Your task to perform on an android device: turn vacation reply on in the gmail app Image 0: 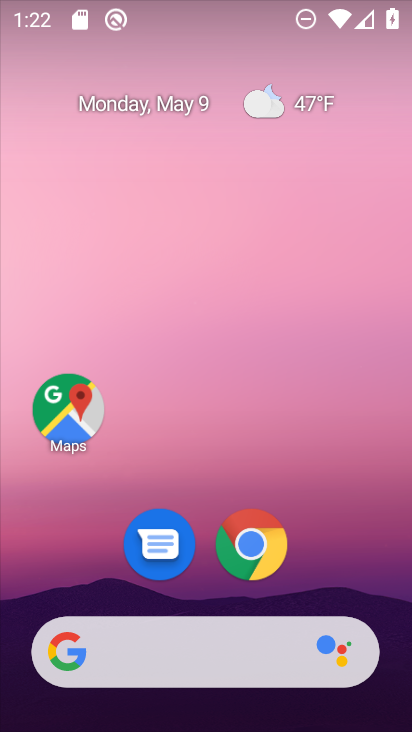
Step 0: click (289, 176)
Your task to perform on an android device: turn vacation reply on in the gmail app Image 1: 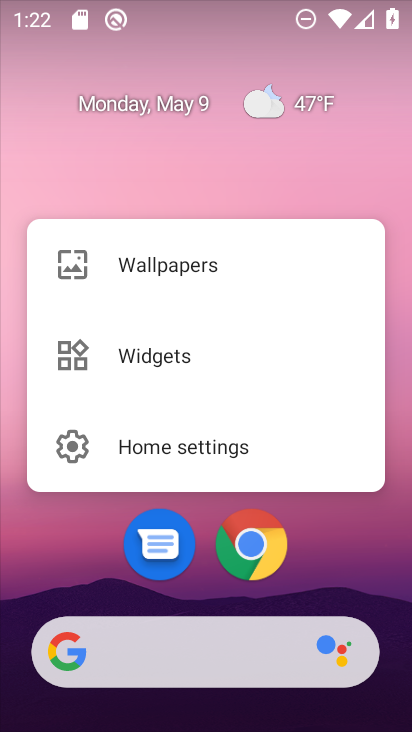
Step 1: click (365, 221)
Your task to perform on an android device: turn vacation reply on in the gmail app Image 2: 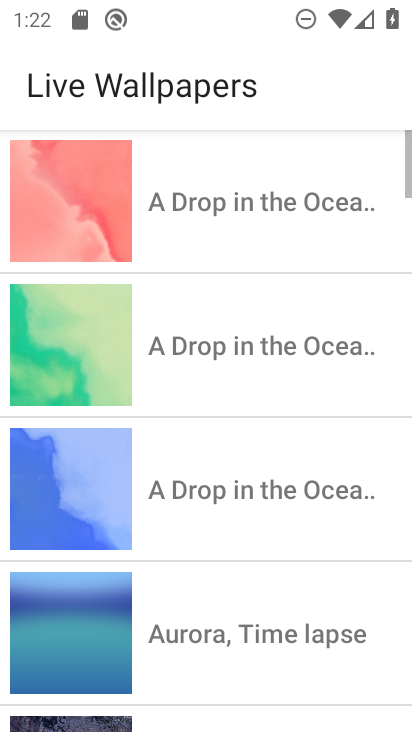
Step 2: press home button
Your task to perform on an android device: turn vacation reply on in the gmail app Image 3: 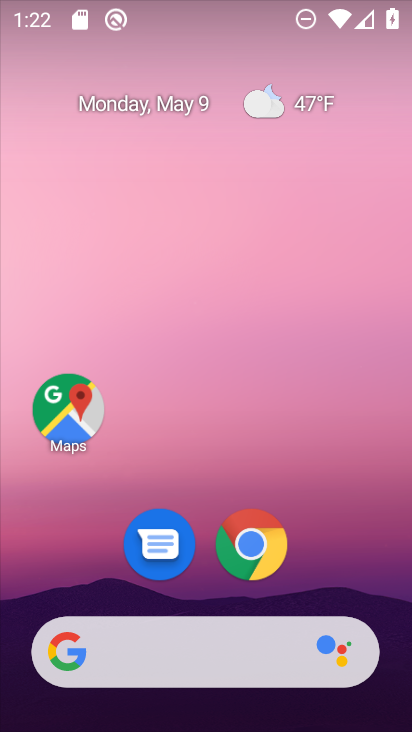
Step 3: drag from (380, 514) to (402, 158)
Your task to perform on an android device: turn vacation reply on in the gmail app Image 4: 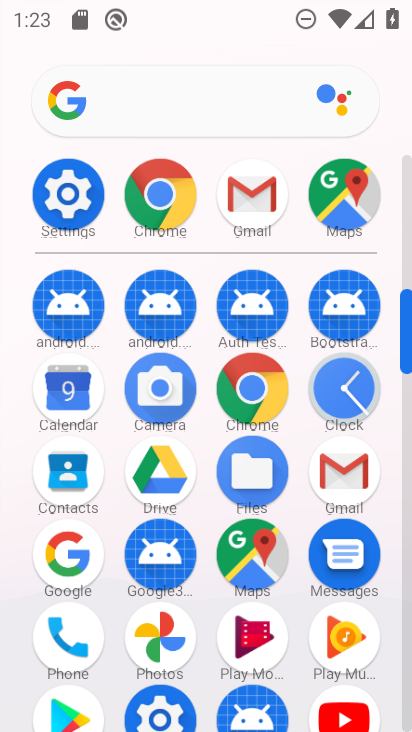
Step 4: click (258, 210)
Your task to perform on an android device: turn vacation reply on in the gmail app Image 5: 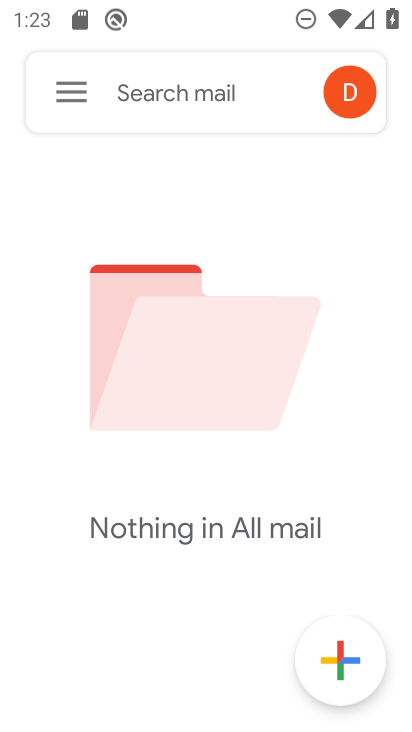
Step 5: click (69, 88)
Your task to perform on an android device: turn vacation reply on in the gmail app Image 6: 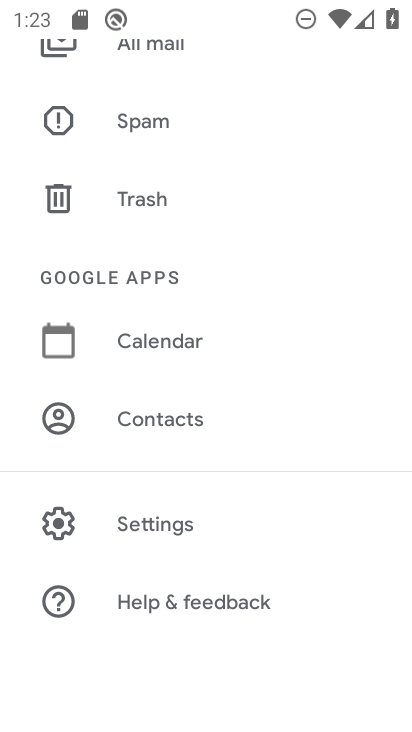
Step 6: click (164, 526)
Your task to perform on an android device: turn vacation reply on in the gmail app Image 7: 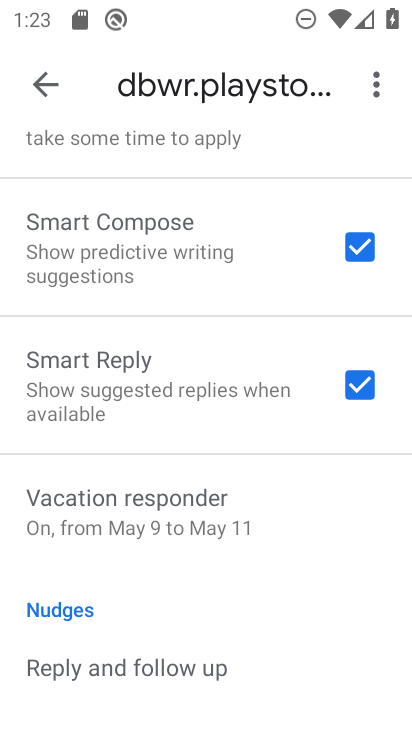
Step 7: click (199, 513)
Your task to perform on an android device: turn vacation reply on in the gmail app Image 8: 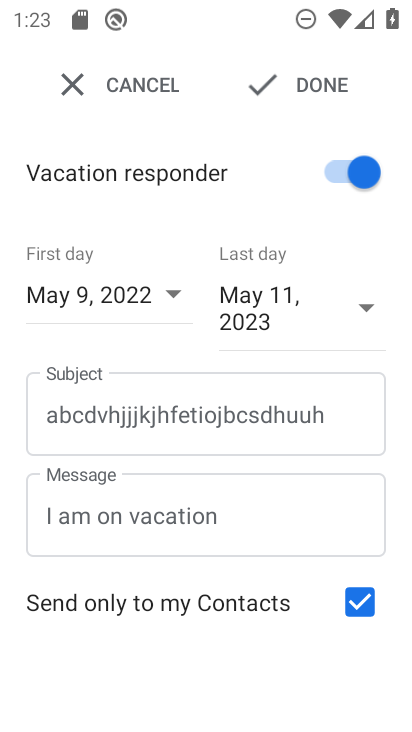
Step 8: task complete